Your task to perform on an android device: turn pop-ups on in chrome Image 0: 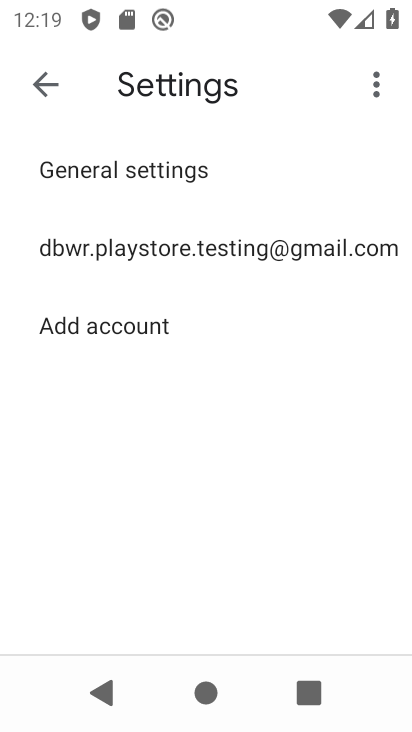
Step 0: press home button
Your task to perform on an android device: turn pop-ups on in chrome Image 1: 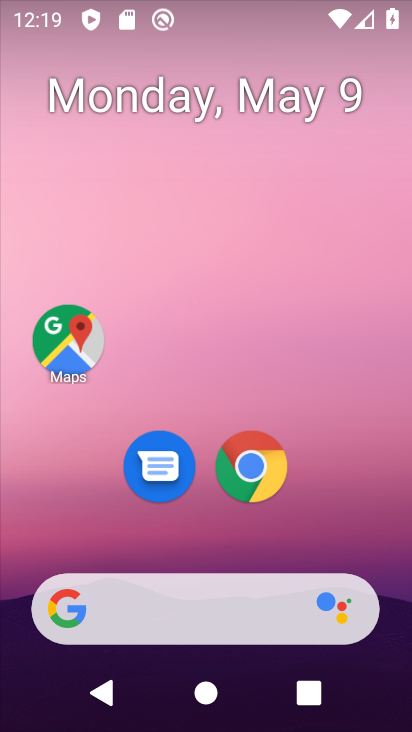
Step 1: drag from (400, 570) to (364, 131)
Your task to perform on an android device: turn pop-ups on in chrome Image 2: 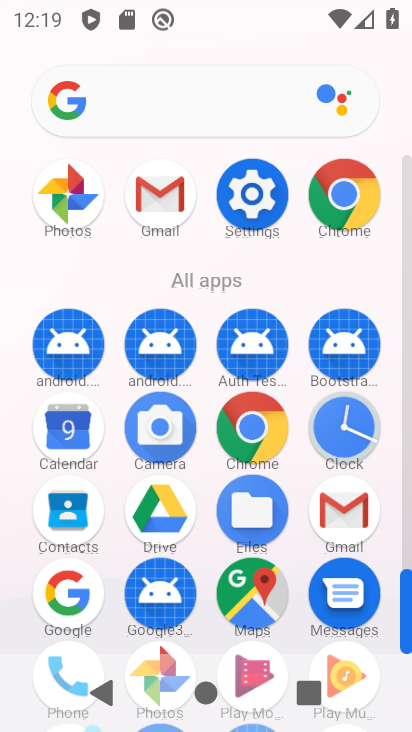
Step 2: click (370, 208)
Your task to perform on an android device: turn pop-ups on in chrome Image 3: 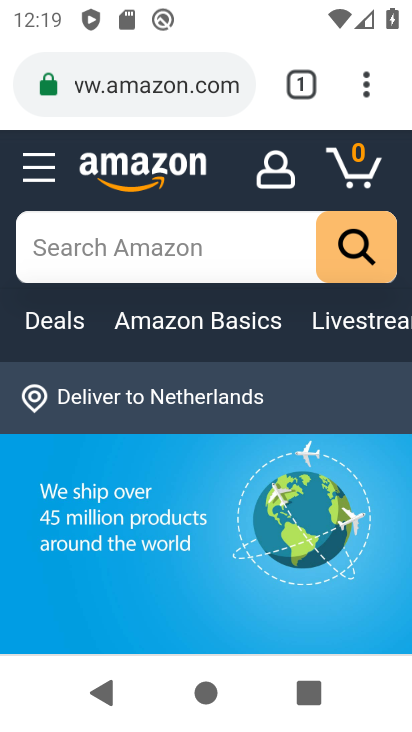
Step 3: click (365, 104)
Your task to perform on an android device: turn pop-ups on in chrome Image 4: 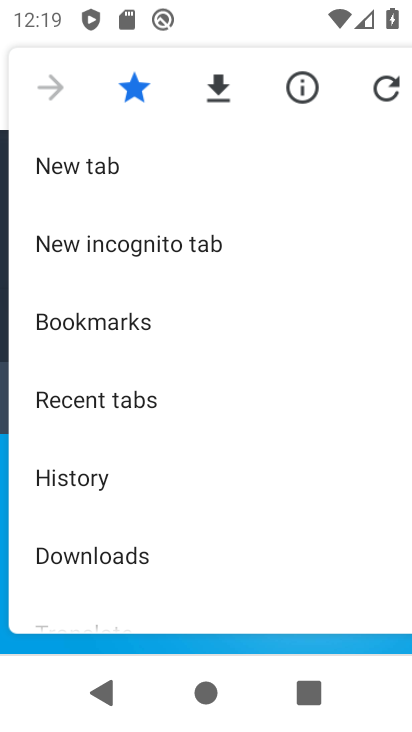
Step 4: drag from (164, 578) to (191, 192)
Your task to perform on an android device: turn pop-ups on in chrome Image 5: 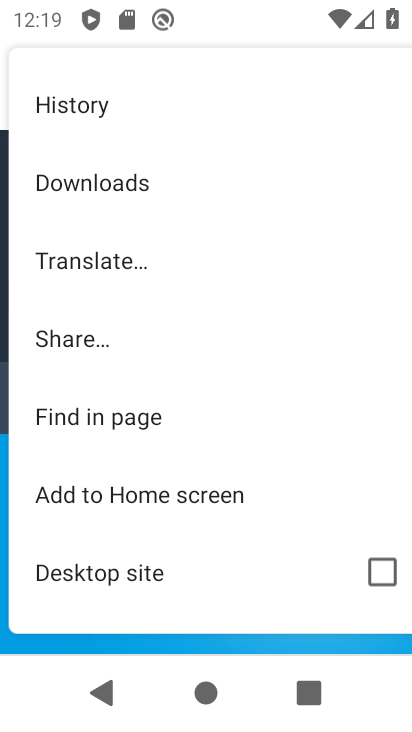
Step 5: drag from (195, 539) to (198, 225)
Your task to perform on an android device: turn pop-ups on in chrome Image 6: 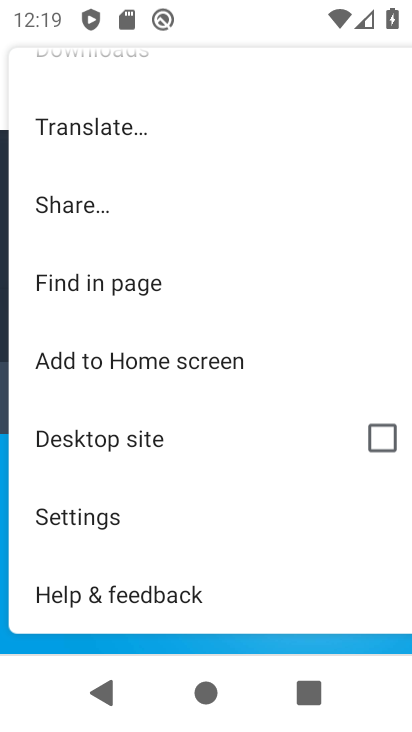
Step 6: click (194, 515)
Your task to perform on an android device: turn pop-ups on in chrome Image 7: 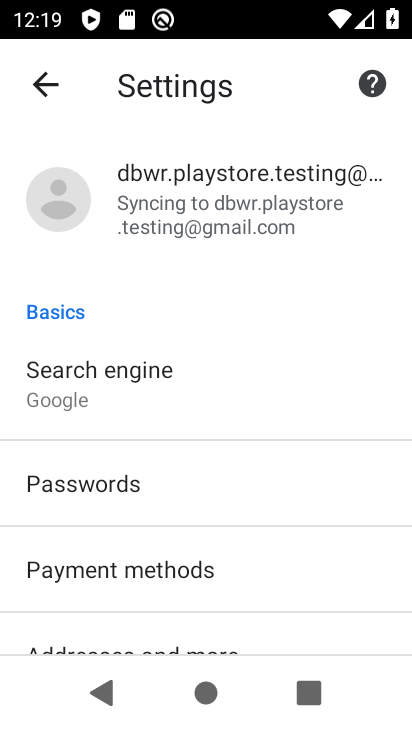
Step 7: drag from (296, 625) to (241, 117)
Your task to perform on an android device: turn pop-ups on in chrome Image 8: 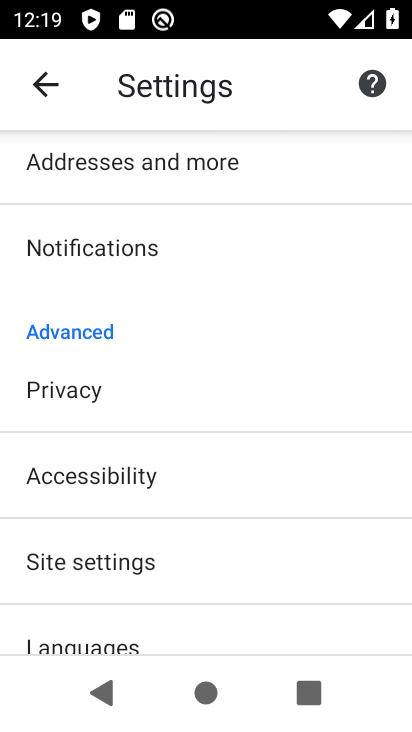
Step 8: drag from (239, 574) to (208, 207)
Your task to perform on an android device: turn pop-ups on in chrome Image 9: 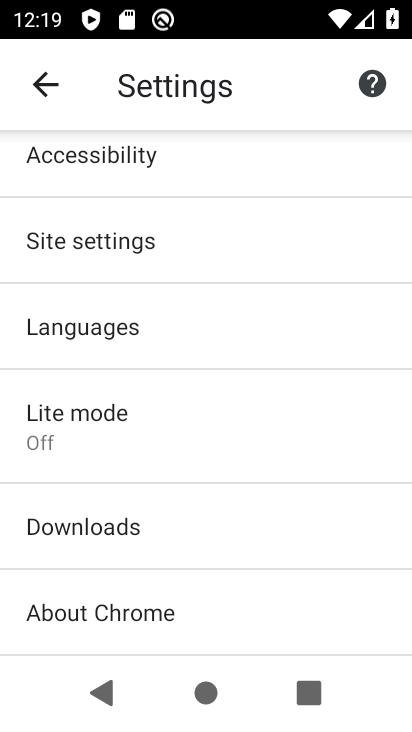
Step 9: click (201, 240)
Your task to perform on an android device: turn pop-ups on in chrome Image 10: 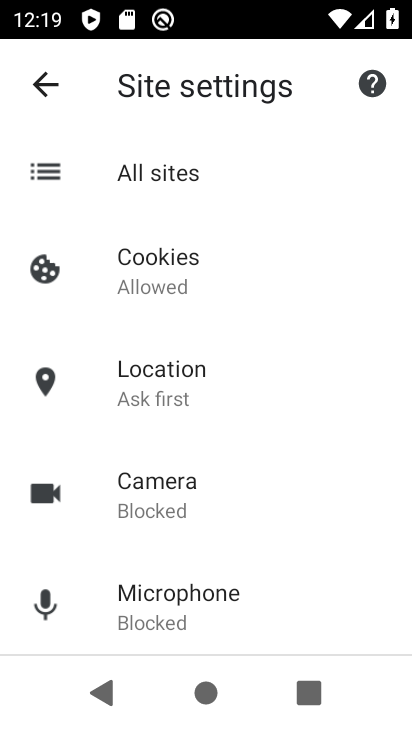
Step 10: drag from (268, 514) to (229, 181)
Your task to perform on an android device: turn pop-ups on in chrome Image 11: 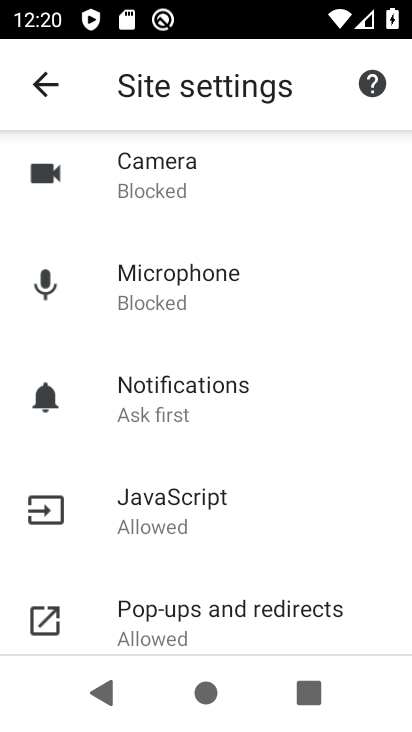
Step 11: click (331, 635)
Your task to perform on an android device: turn pop-ups on in chrome Image 12: 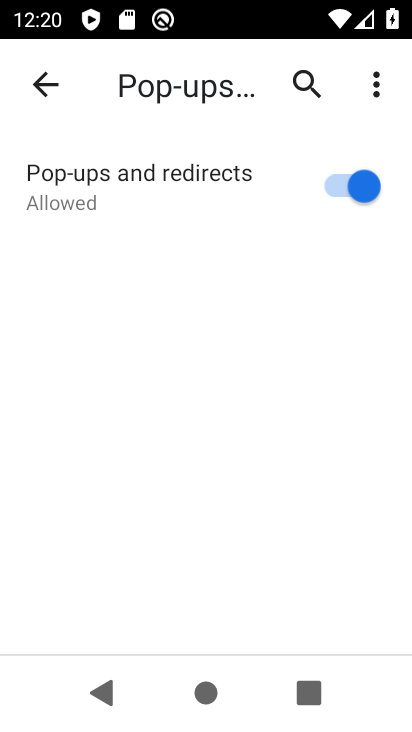
Step 12: task complete